Your task to perform on an android device: turn on bluetooth scan Image 0: 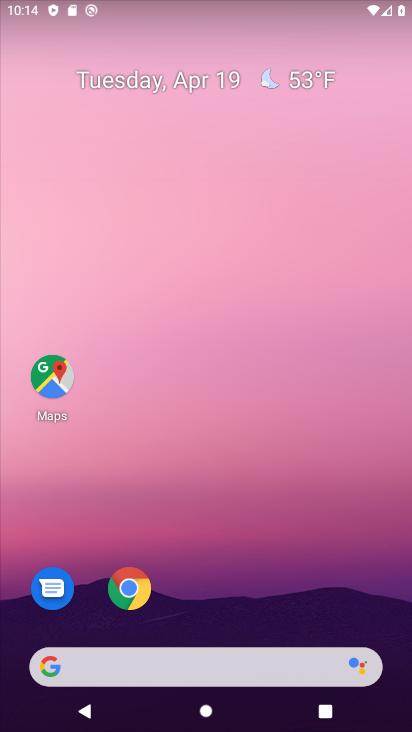
Step 0: drag from (147, 662) to (114, 238)
Your task to perform on an android device: turn on bluetooth scan Image 1: 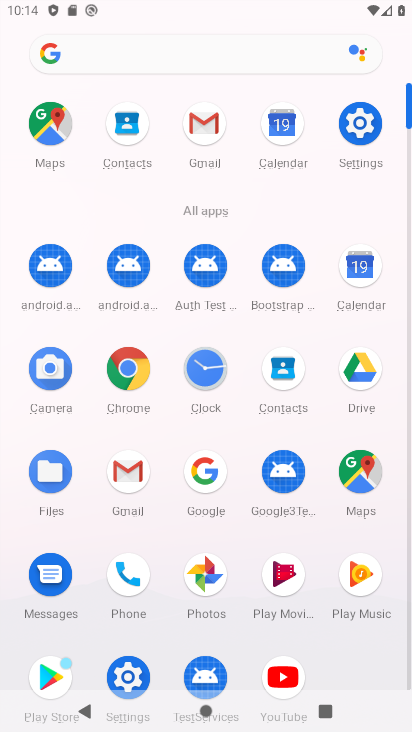
Step 1: click (349, 145)
Your task to perform on an android device: turn on bluetooth scan Image 2: 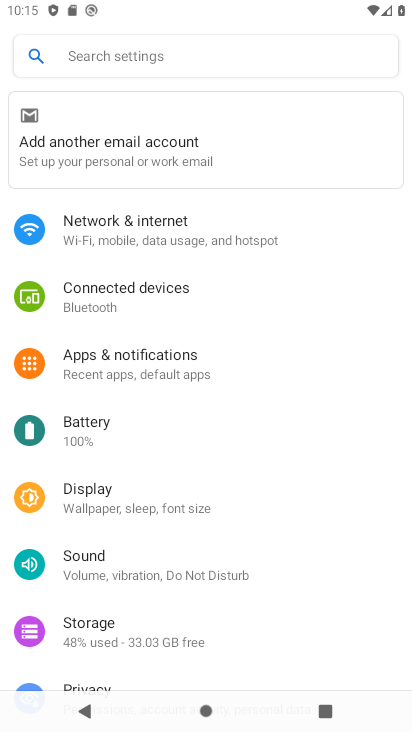
Step 2: drag from (129, 510) to (152, 257)
Your task to perform on an android device: turn on bluetooth scan Image 3: 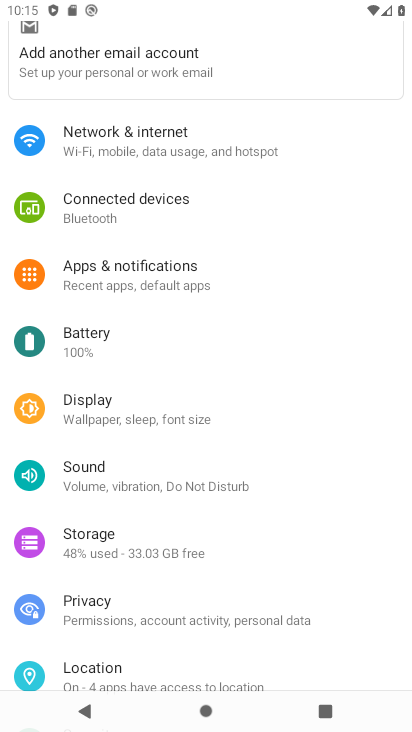
Step 3: click (119, 662)
Your task to perform on an android device: turn on bluetooth scan Image 4: 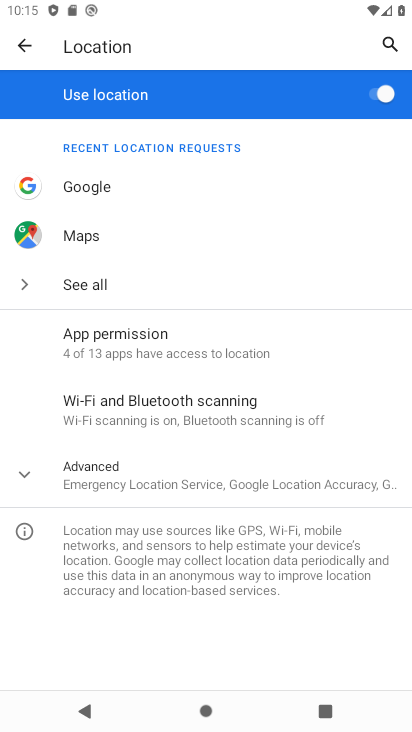
Step 4: click (132, 408)
Your task to perform on an android device: turn on bluetooth scan Image 5: 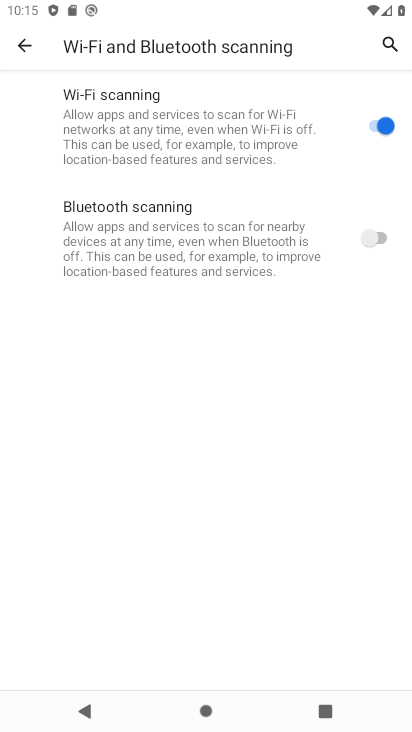
Step 5: click (378, 242)
Your task to perform on an android device: turn on bluetooth scan Image 6: 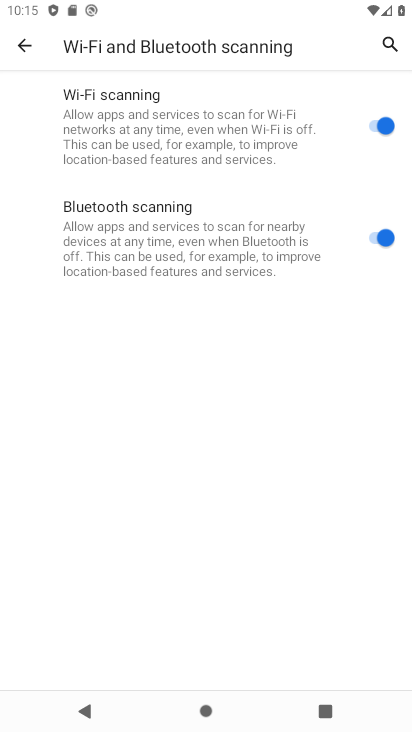
Step 6: task complete